Your task to perform on an android device: Go to location settings Image 0: 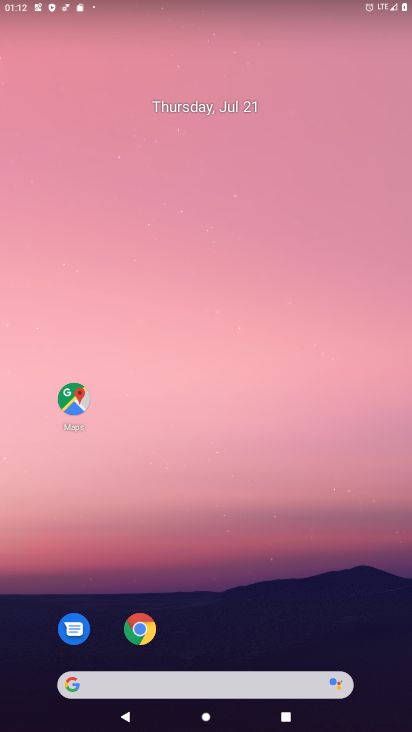
Step 0: drag from (331, 600) to (255, 81)
Your task to perform on an android device: Go to location settings Image 1: 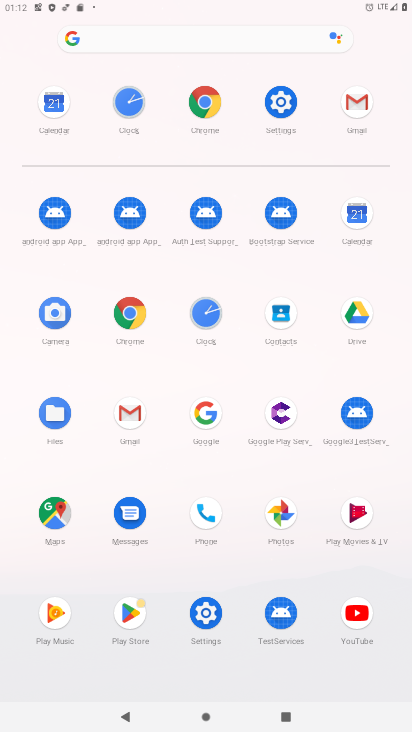
Step 1: click (294, 108)
Your task to perform on an android device: Go to location settings Image 2: 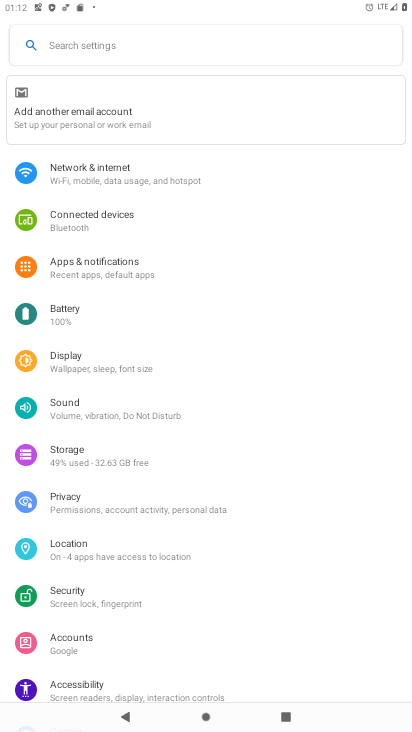
Step 2: click (78, 544)
Your task to perform on an android device: Go to location settings Image 3: 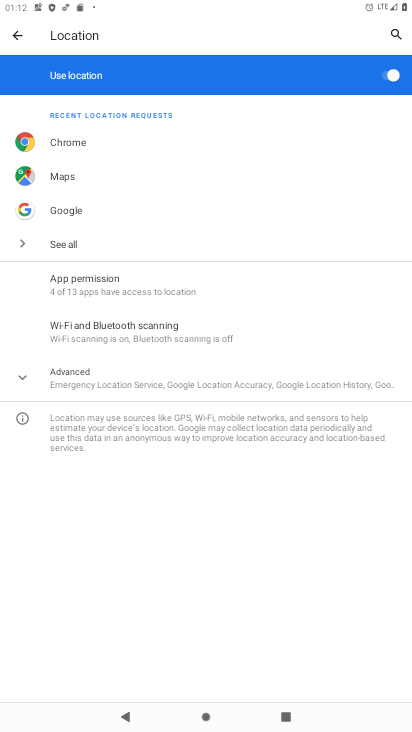
Step 3: task complete